Your task to perform on an android device: Open calendar and show me the fourth week of next month Image 0: 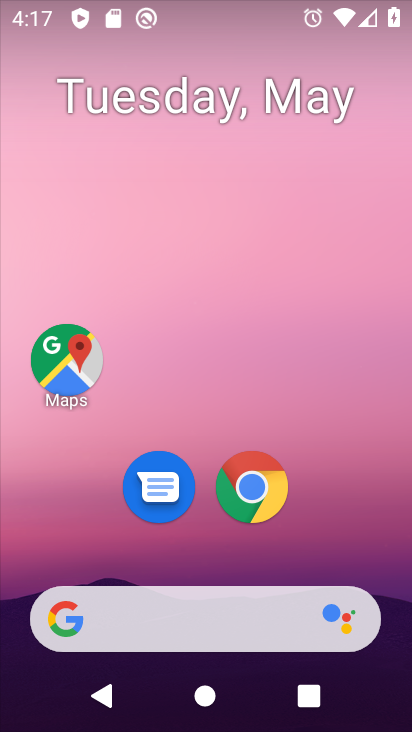
Step 0: drag from (373, 542) to (275, 183)
Your task to perform on an android device: Open calendar and show me the fourth week of next month Image 1: 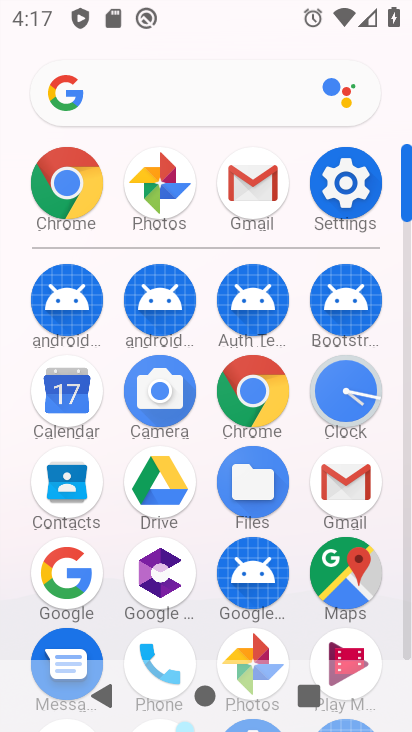
Step 1: click (74, 390)
Your task to perform on an android device: Open calendar and show me the fourth week of next month Image 2: 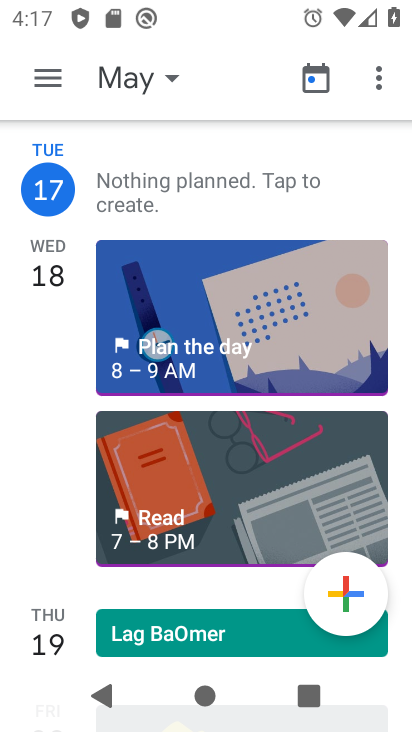
Step 2: click (141, 79)
Your task to perform on an android device: Open calendar and show me the fourth week of next month Image 3: 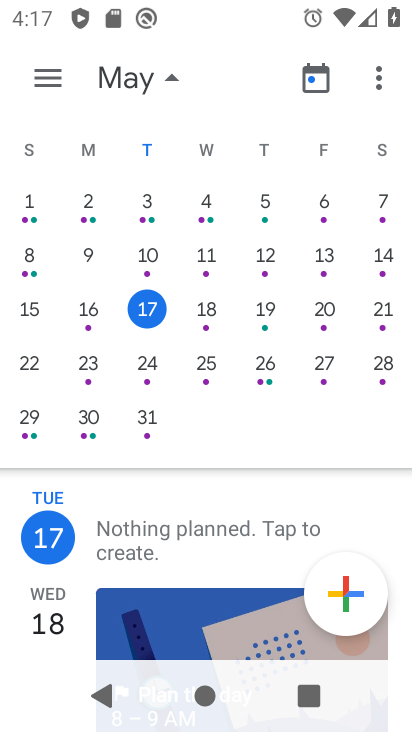
Step 3: drag from (382, 314) to (69, 306)
Your task to perform on an android device: Open calendar and show me the fourth week of next month Image 4: 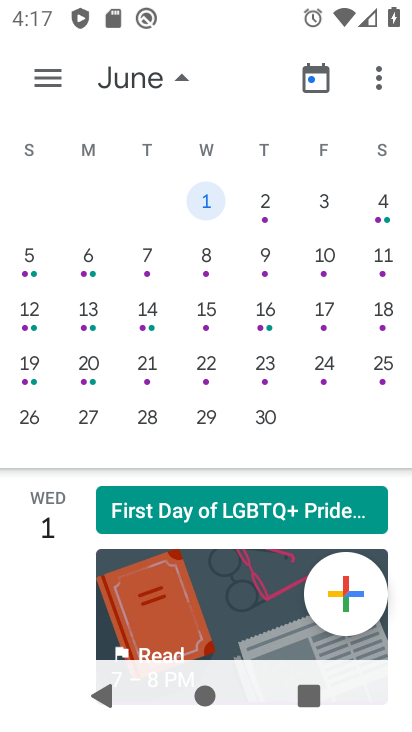
Step 4: click (32, 425)
Your task to perform on an android device: Open calendar and show me the fourth week of next month Image 5: 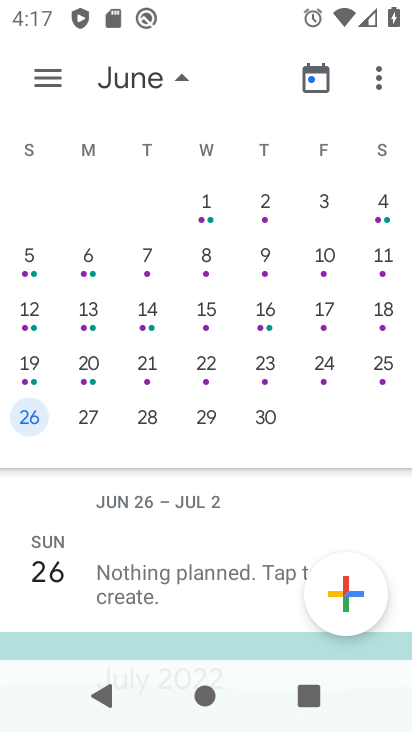
Step 5: click (43, 76)
Your task to perform on an android device: Open calendar and show me the fourth week of next month Image 6: 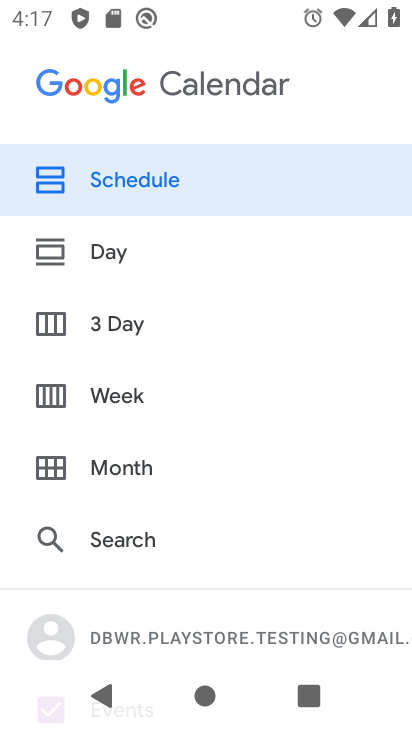
Step 6: click (135, 392)
Your task to perform on an android device: Open calendar and show me the fourth week of next month Image 7: 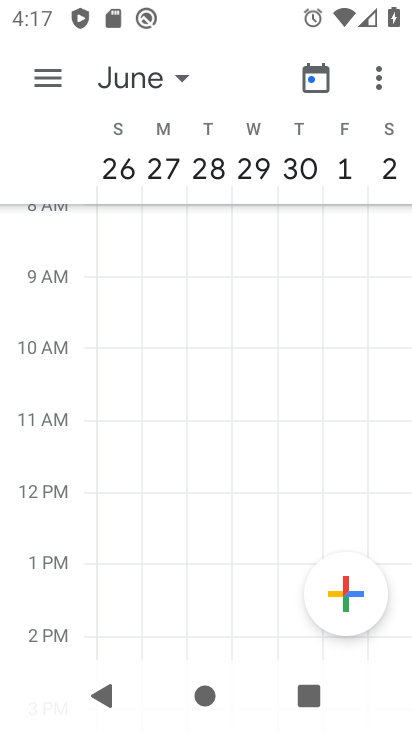
Step 7: task complete